Your task to perform on an android device: Show the shopping cart on walmart. Add "bose soundlink mini" to the cart on walmart, then select checkout. Image 0: 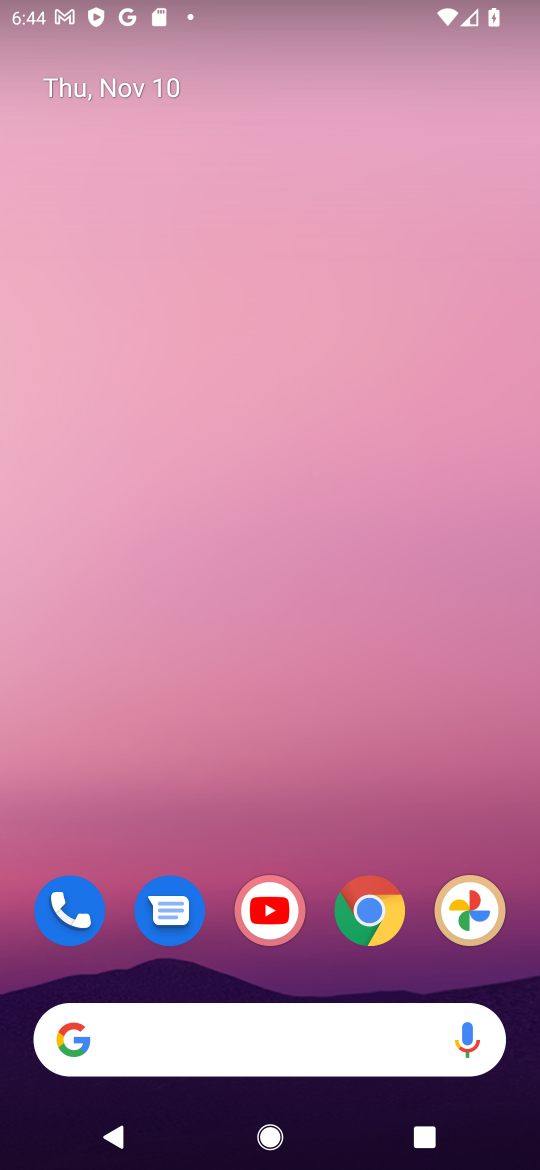
Step 0: click (369, 907)
Your task to perform on an android device: Show the shopping cart on walmart. Add "bose soundlink mini" to the cart on walmart, then select checkout. Image 1: 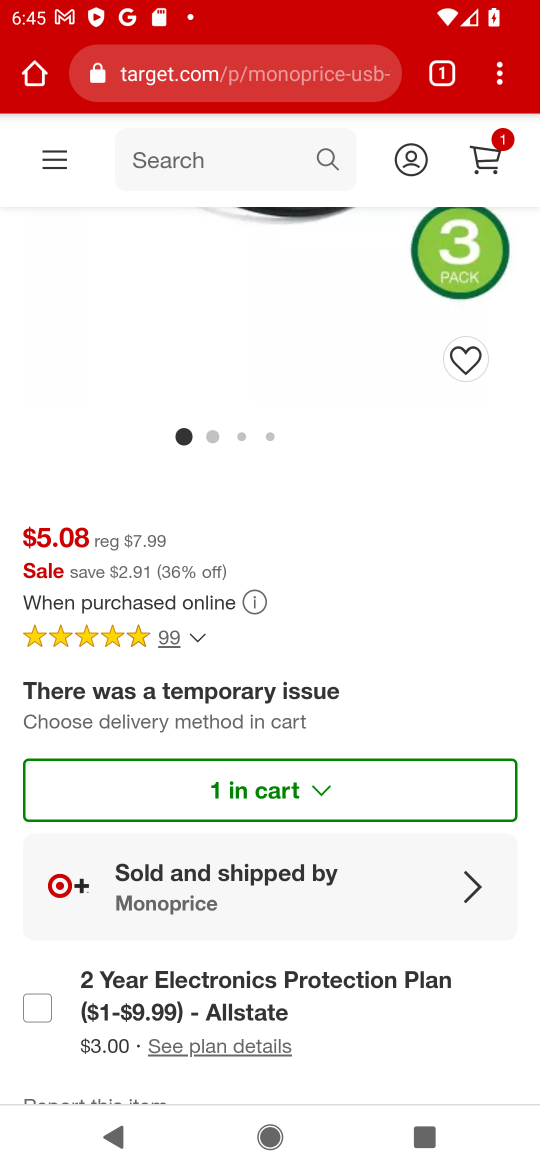
Step 1: click (288, 69)
Your task to perform on an android device: Show the shopping cart on walmart. Add "bose soundlink mini" to the cart on walmart, then select checkout. Image 2: 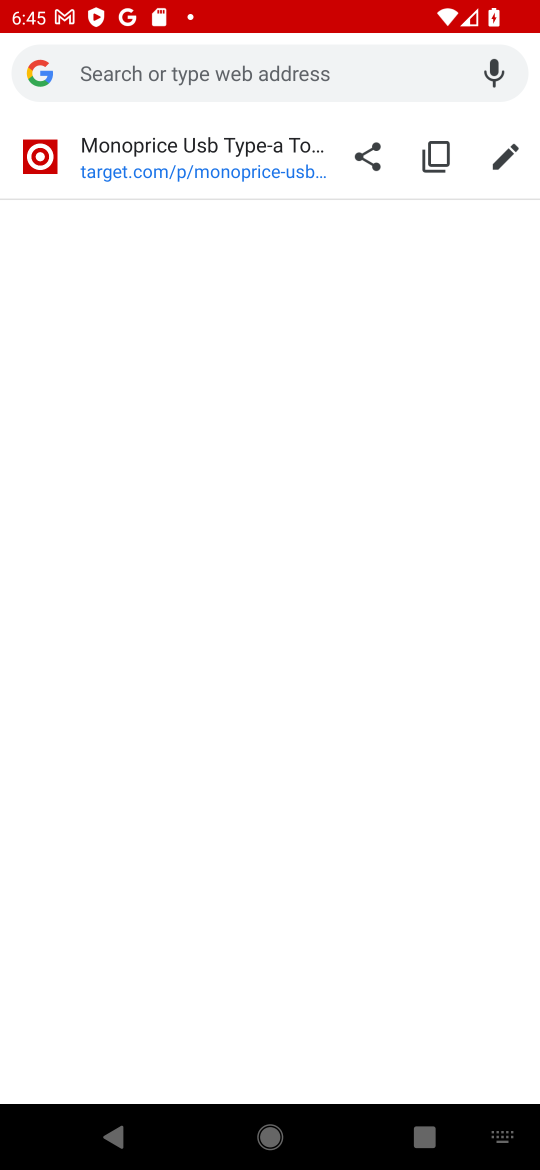
Step 2: type "walmart"
Your task to perform on an android device: Show the shopping cart on walmart. Add "bose soundlink mini" to the cart on walmart, then select checkout. Image 3: 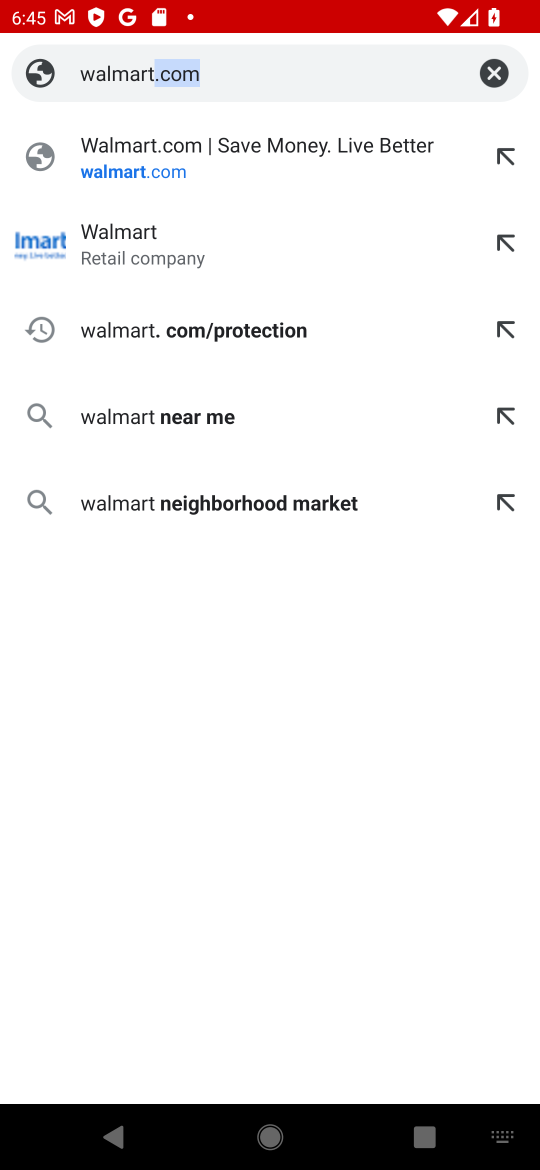
Step 3: click (114, 235)
Your task to perform on an android device: Show the shopping cart on walmart. Add "bose soundlink mini" to the cart on walmart, then select checkout. Image 4: 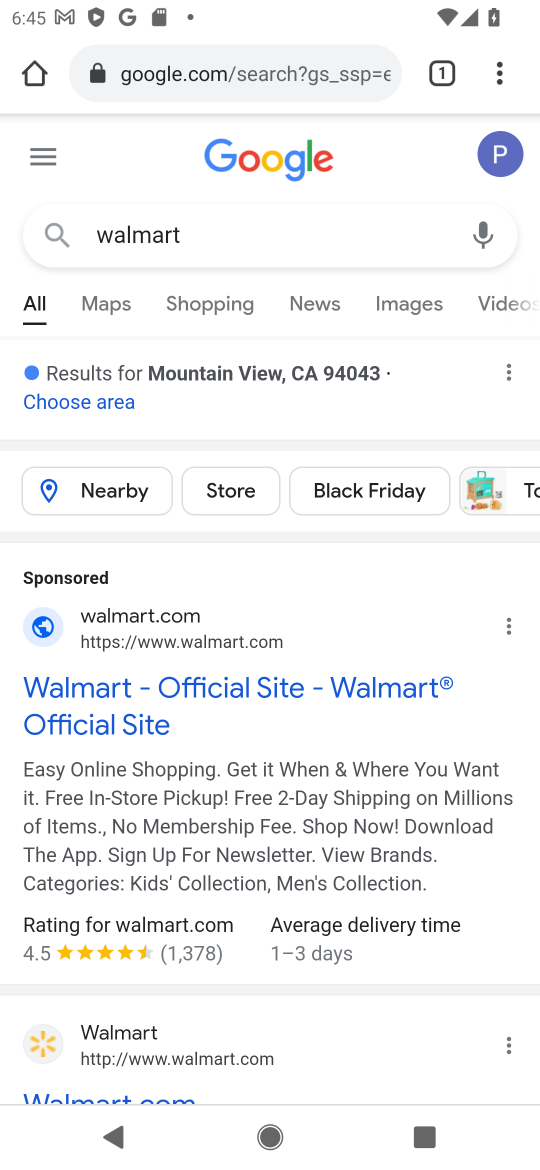
Step 4: drag from (263, 762) to (394, 178)
Your task to perform on an android device: Show the shopping cart on walmart. Add "bose soundlink mini" to the cart on walmart, then select checkout. Image 5: 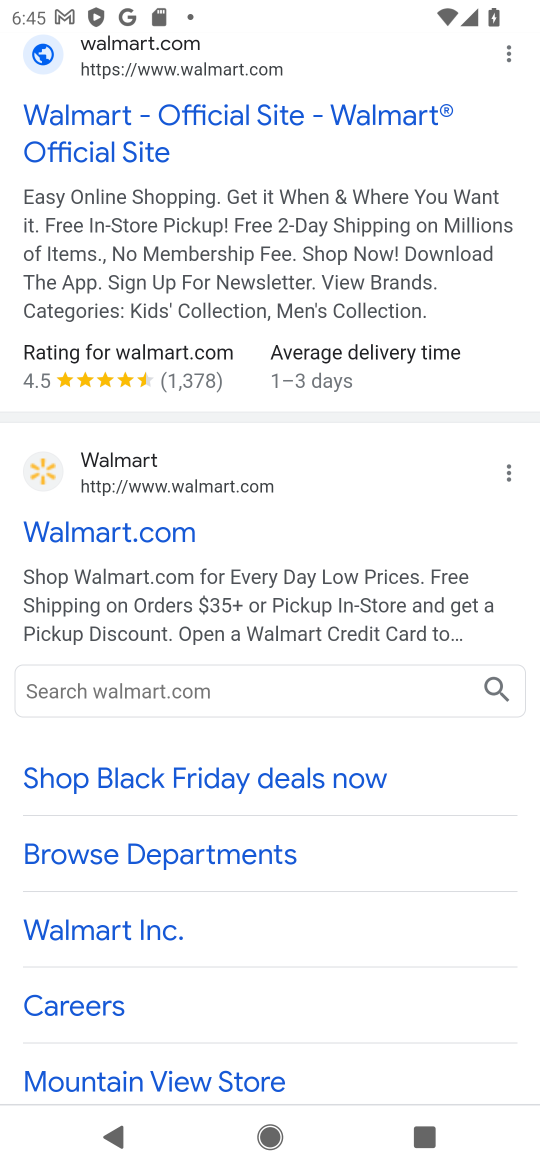
Step 5: click (191, 511)
Your task to perform on an android device: Show the shopping cart on walmart. Add "bose soundlink mini" to the cart on walmart, then select checkout. Image 6: 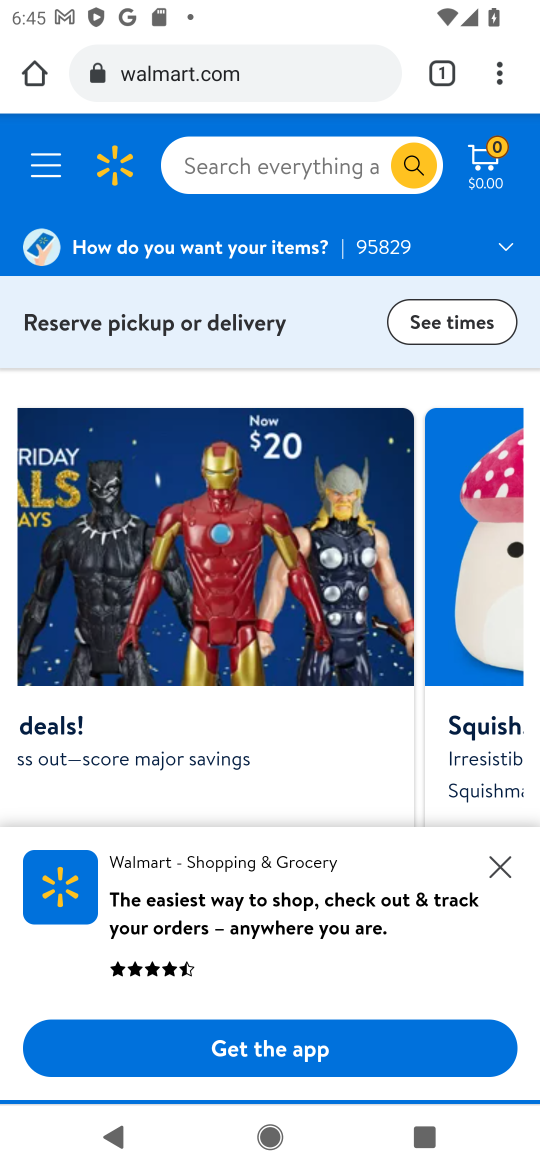
Step 6: click (489, 158)
Your task to perform on an android device: Show the shopping cart on walmart. Add "bose soundlink mini" to the cart on walmart, then select checkout. Image 7: 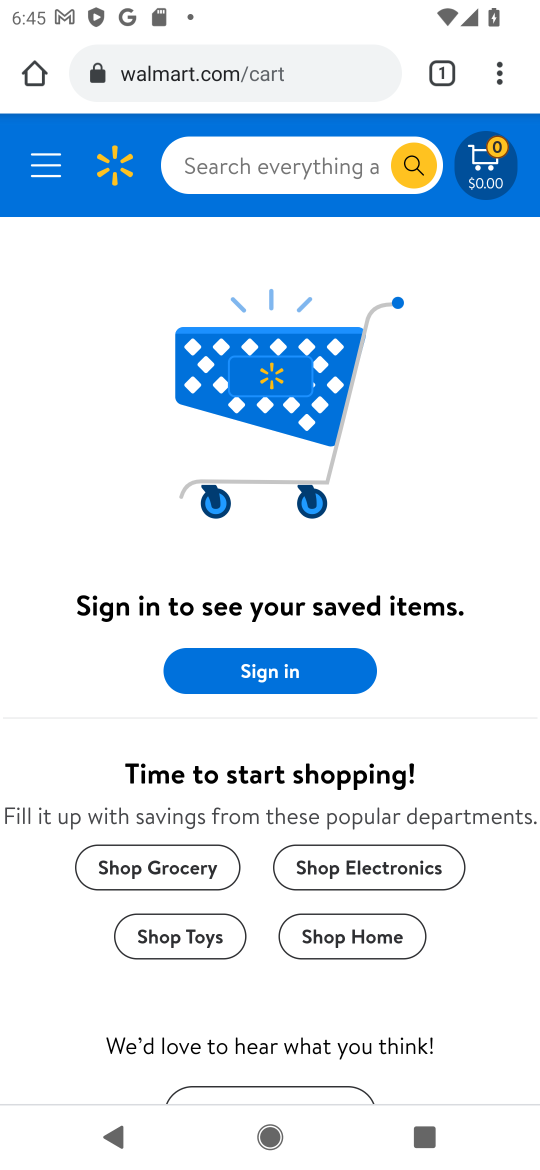
Step 7: click (289, 171)
Your task to perform on an android device: Show the shopping cart on walmart. Add "bose soundlink mini" to the cart on walmart, then select checkout. Image 8: 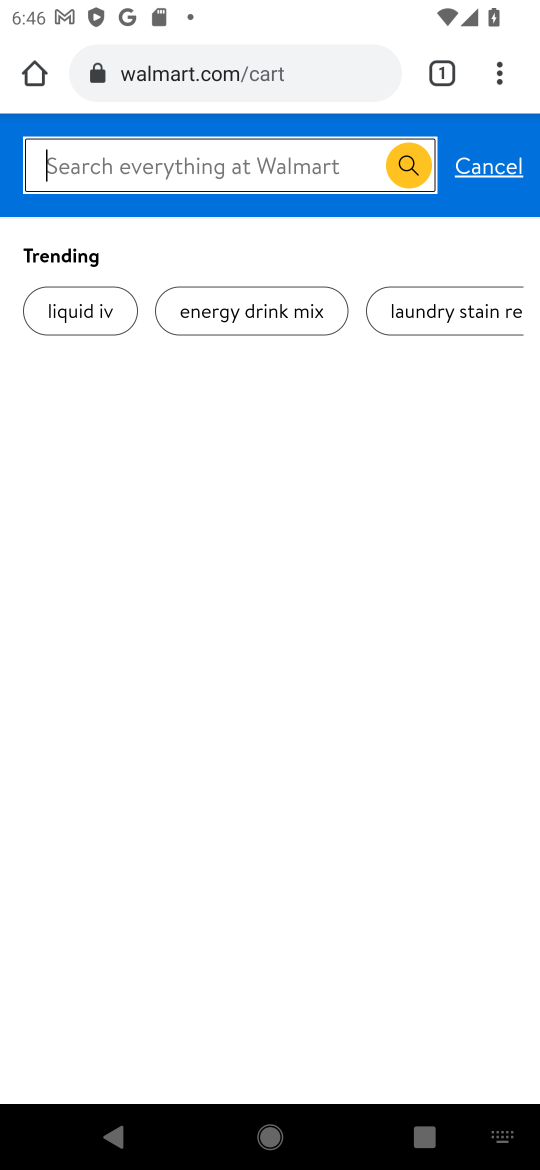
Step 8: type "bose soundlink mini"
Your task to perform on an android device: Show the shopping cart on walmart. Add "bose soundlink mini" to the cart on walmart, then select checkout. Image 9: 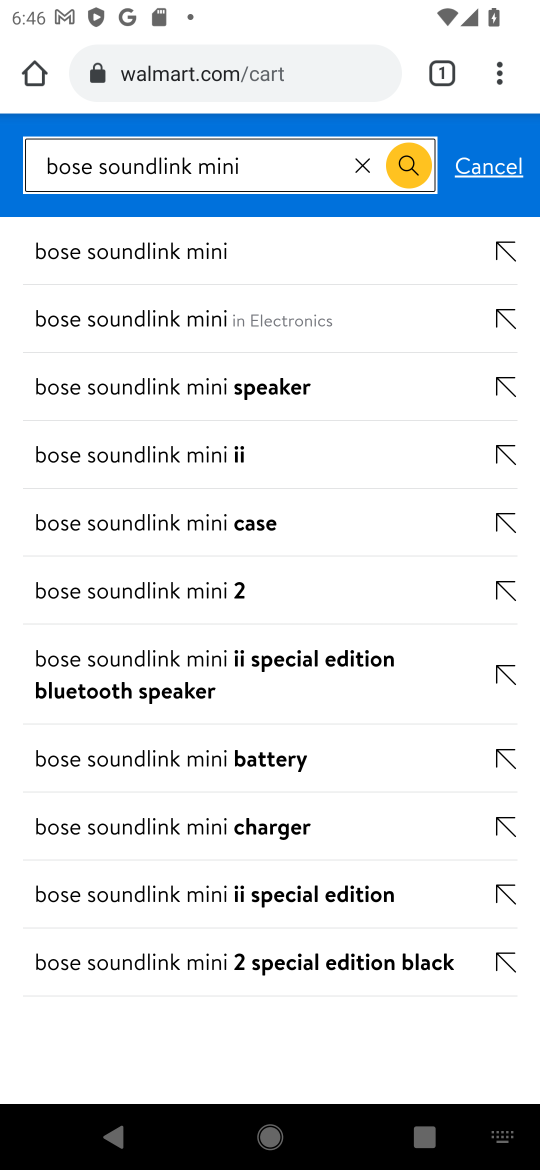
Step 9: click (163, 241)
Your task to perform on an android device: Show the shopping cart on walmart. Add "bose soundlink mini" to the cart on walmart, then select checkout. Image 10: 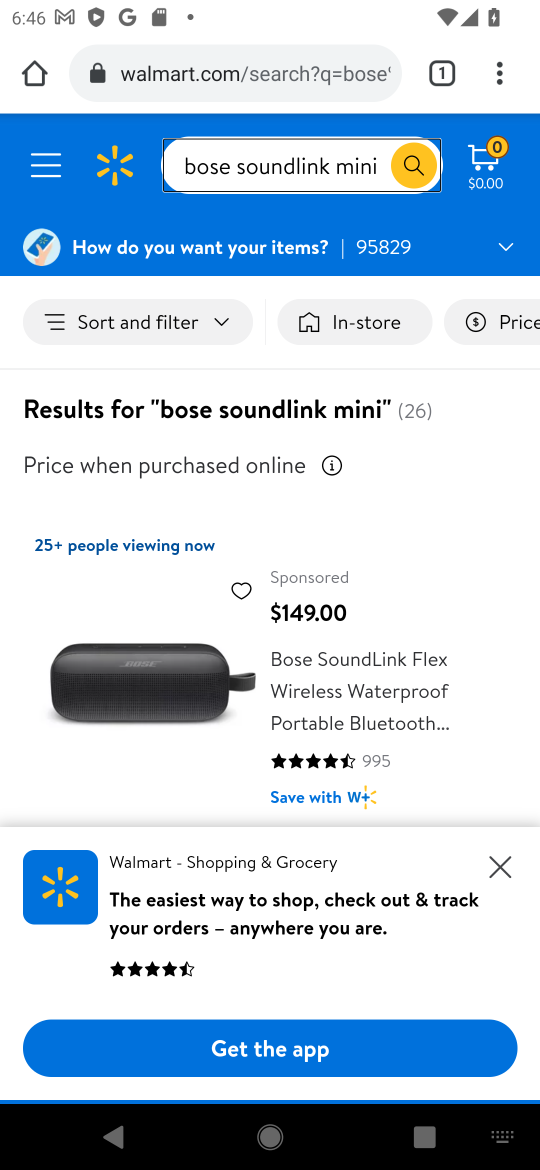
Step 10: click (498, 859)
Your task to perform on an android device: Show the shopping cart on walmart. Add "bose soundlink mini" to the cart on walmart, then select checkout. Image 11: 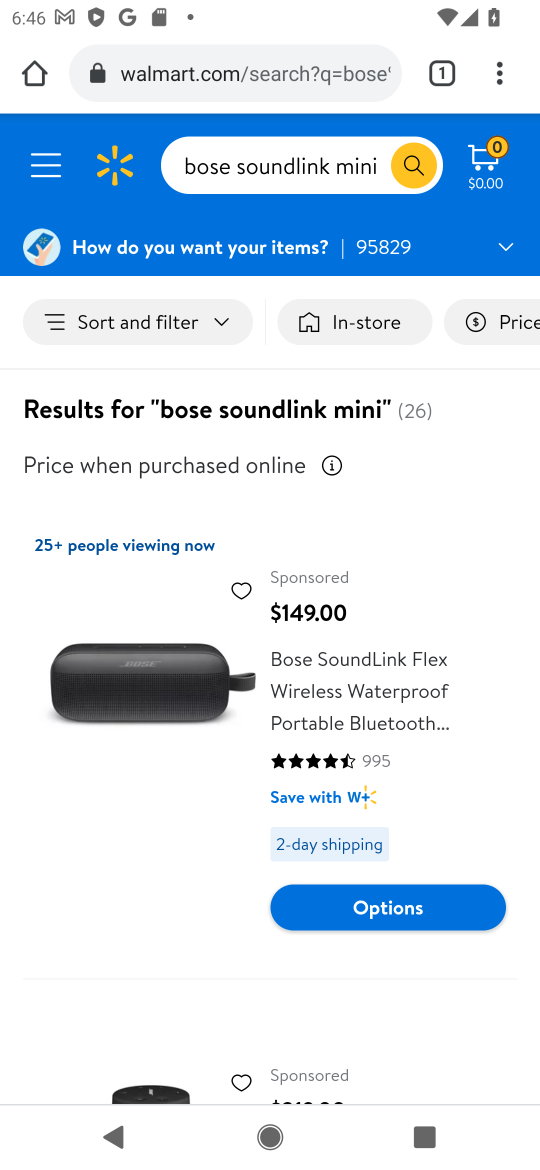
Step 11: drag from (358, 988) to (449, 424)
Your task to perform on an android device: Show the shopping cart on walmart. Add "bose soundlink mini" to the cart on walmart, then select checkout. Image 12: 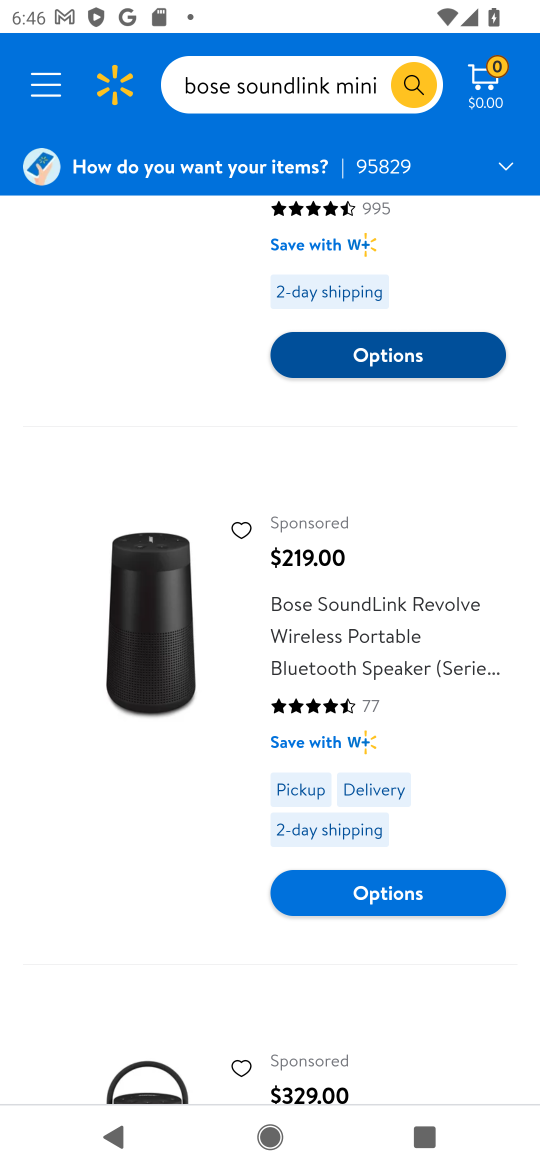
Step 12: drag from (384, 923) to (468, 531)
Your task to perform on an android device: Show the shopping cart on walmart. Add "bose soundlink mini" to the cart on walmart, then select checkout. Image 13: 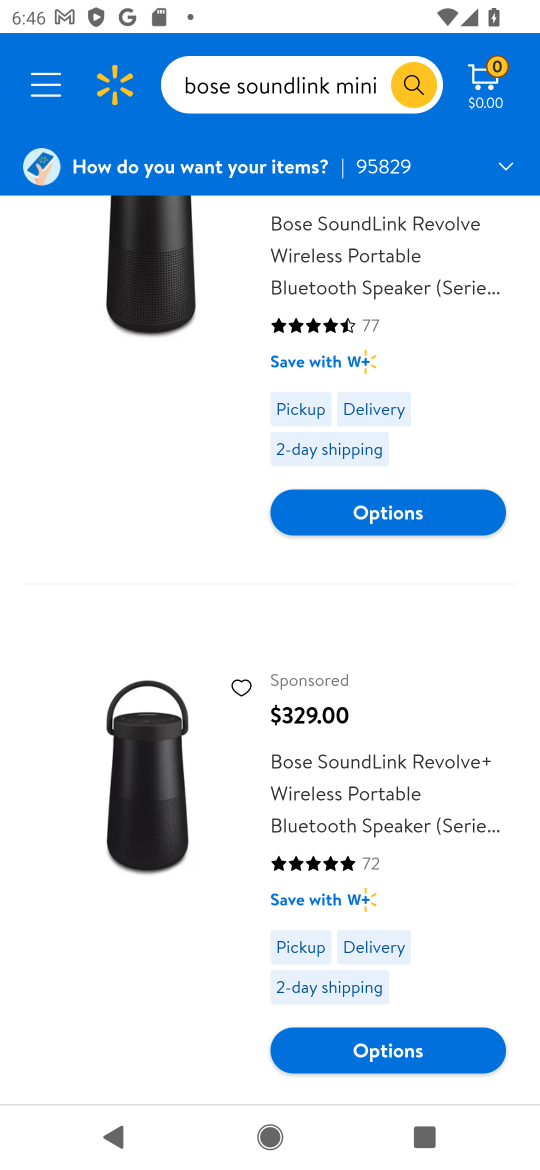
Step 13: drag from (464, 935) to (421, 352)
Your task to perform on an android device: Show the shopping cart on walmart. Add "bose soundlink mini" to the cart on walmart, then select checkout. Image 14: 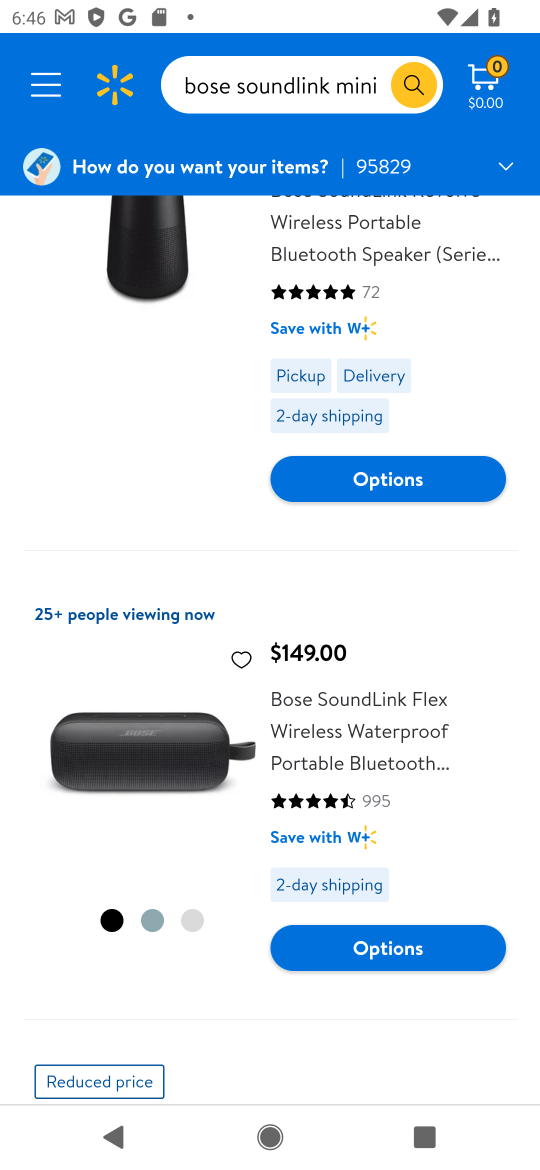
Step 14: click (320, 652)
Your task to perform on an android device: Show the shopping cart on walmart. Add "bose soundlink mini" to the cart on walmart, then select checkout. Image 15: 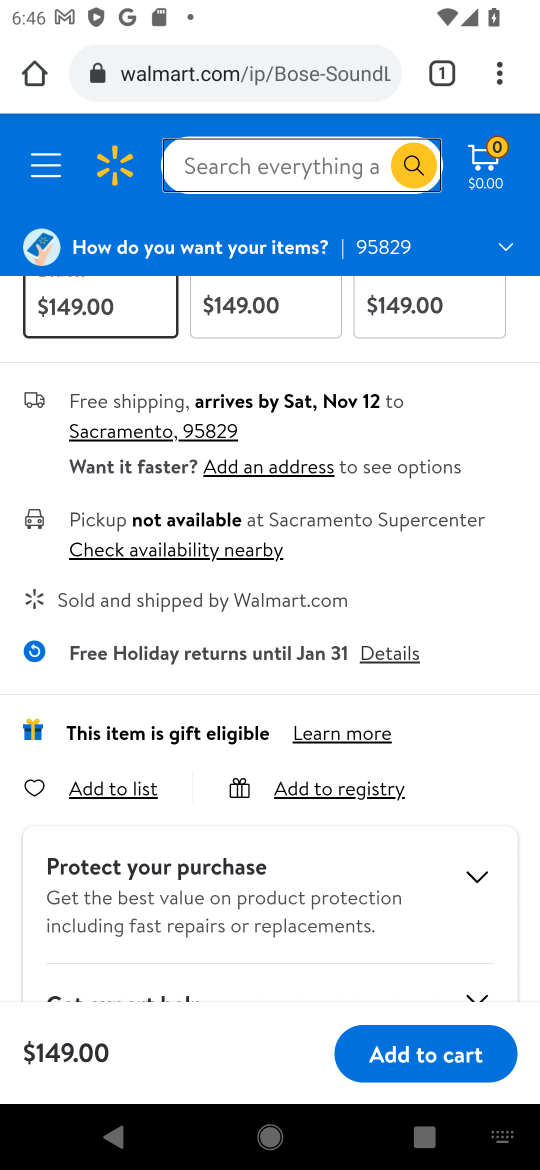
Step 15: click (436, 1048)
Your task to perform on an android device: Show the shopping cart on walmart. Add "bose soundlink mini" to the cart on walmart, then select checkout. Image 16: 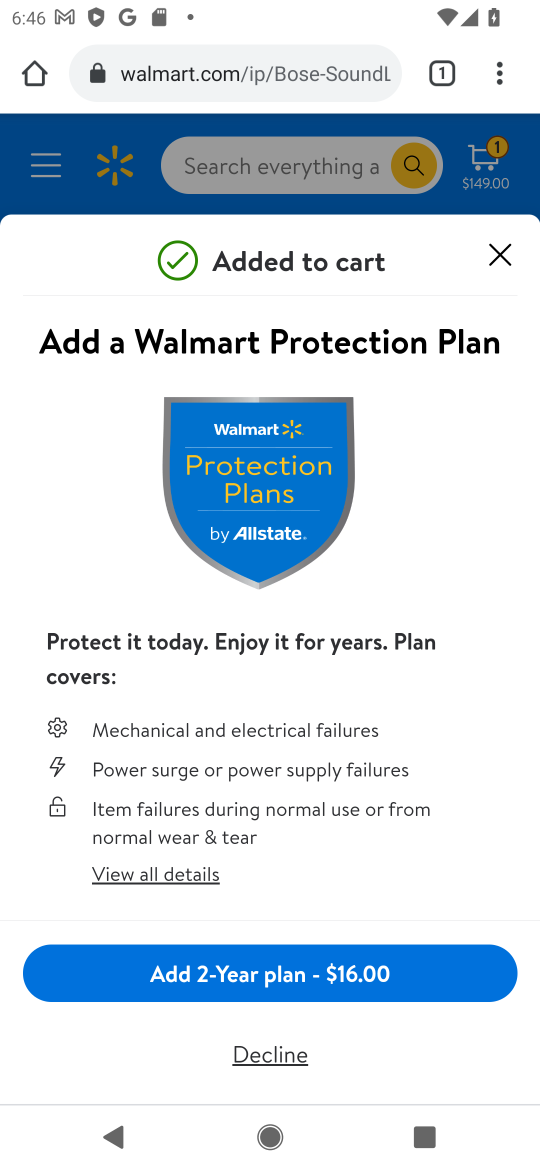
Step 16: click (276, 1059)
Your task to perform on an android device: Show the shopping cart on walmart. Add "bose soundlink mini" to the cart on walmart, then select checkout. Image 17: 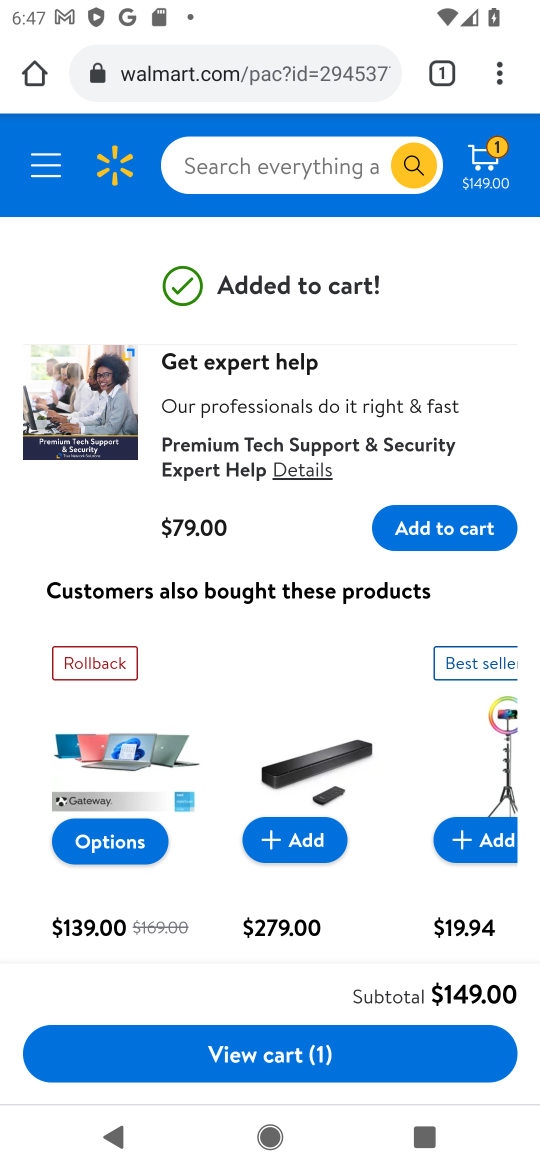
Step 17: click (271, 1064)
Your task to perform on an android device: Show the shopping cart on walmart. Add "bose soundlink mini" to the cart on walmart, then select checkout. Image 18: 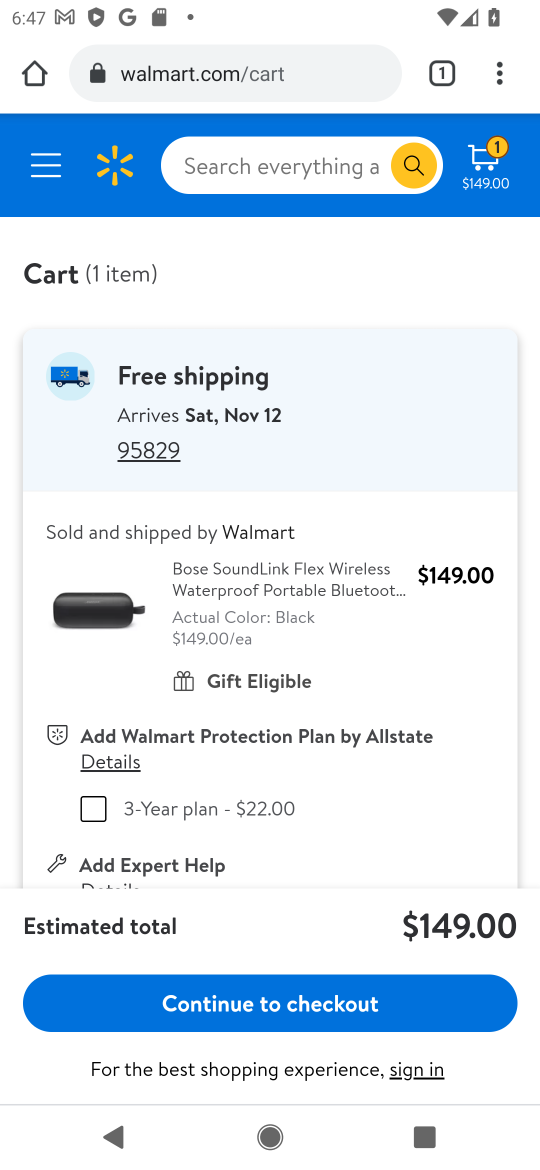
Step 18: click (288, 999)
Your task to perform on an android device: Show the shopping cart on walmart. Add "bose soundlink mini" to the cart on walmart, then select checkout. Image 19: 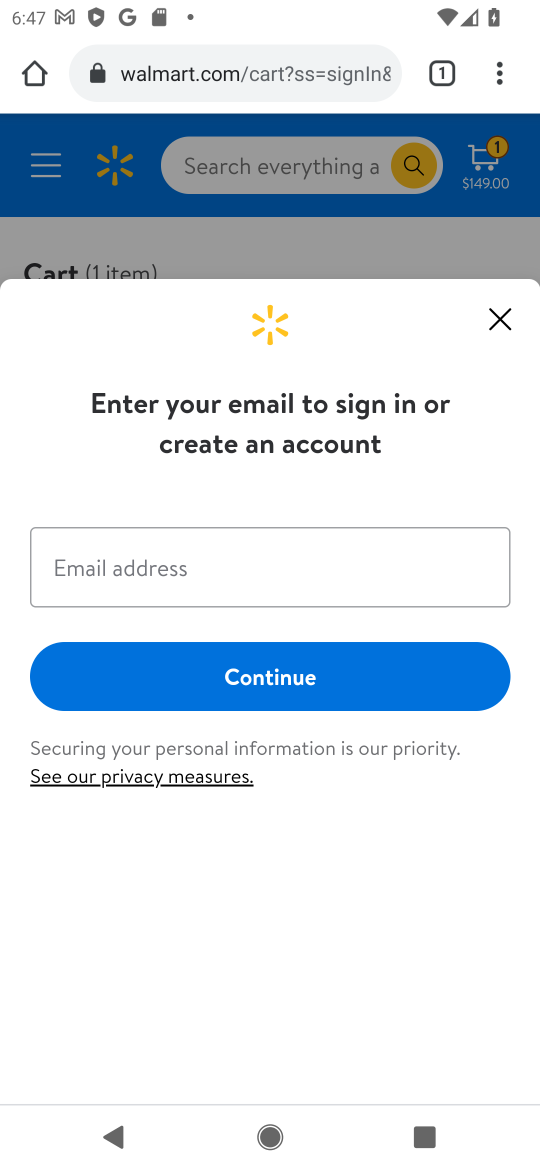
Step 19: task complete